Your task to perform on an android device: turn notification dots off Image 0: 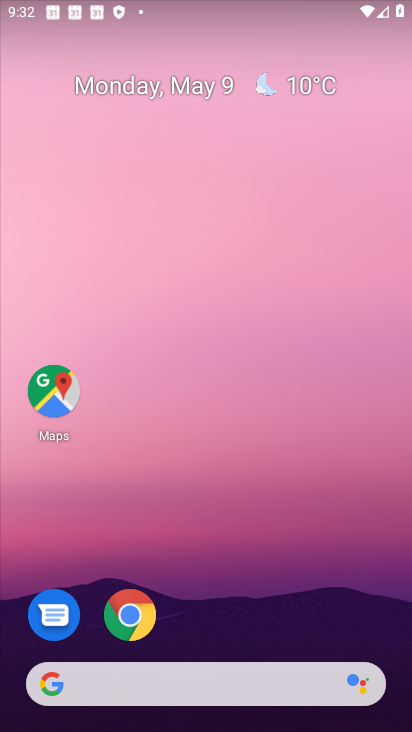
Step 0: drag from (202, 486) to (295, 134)
Your task to perform on an android device: turn notification dots off Image 1: 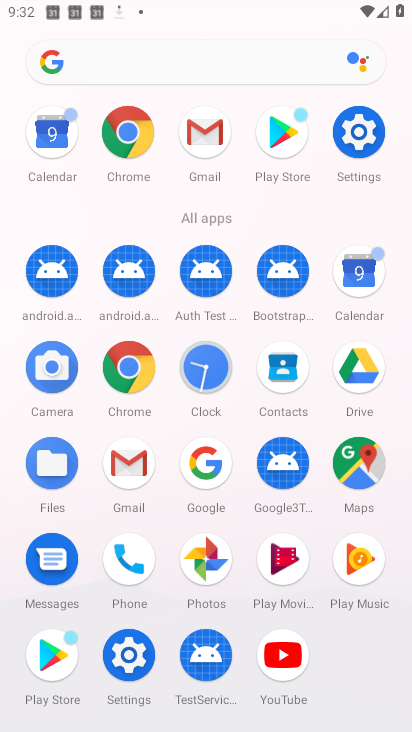
Step 1: click (358, 148)
Your task to perform on an android device: turn notification dots off Image 2: 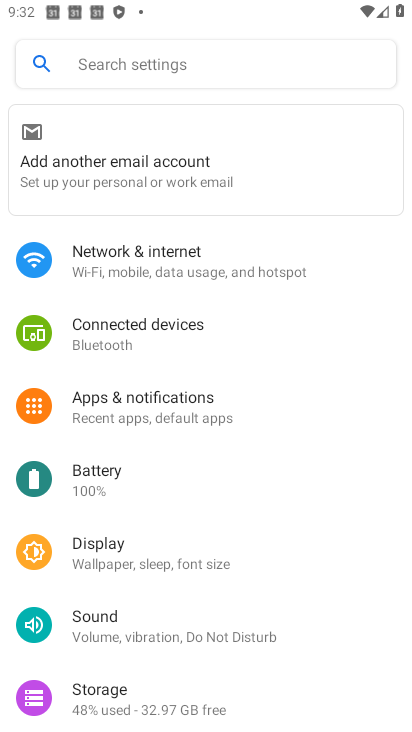
Step 2: click (179, 392)
Your task to perform on an android device: turn notification dots off Image 3: 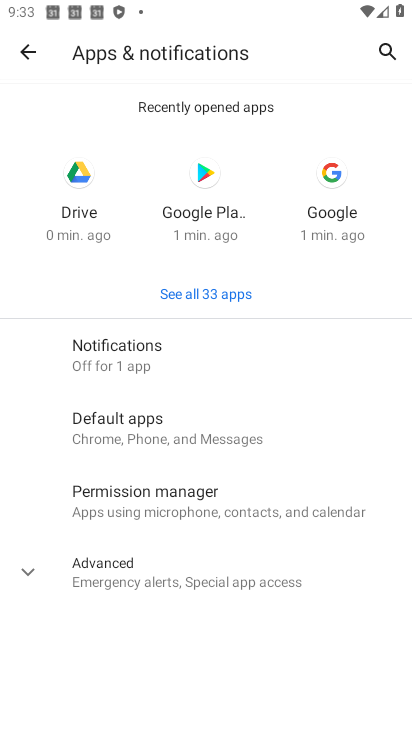
Step 3: click (154, 353)
Your task to perform on an android device: turn notification dots off Image 4: 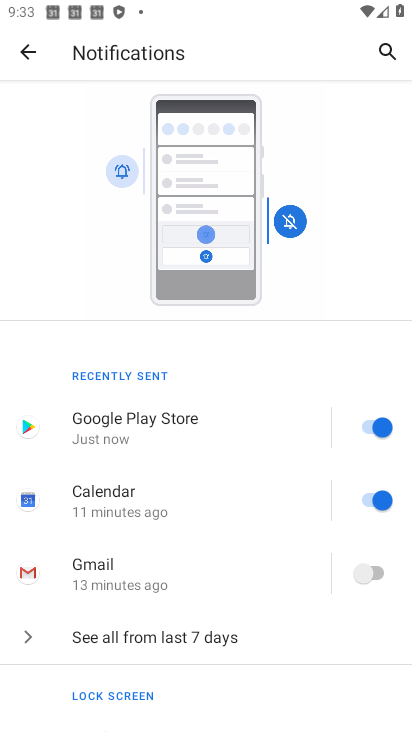
Step 4: drag from (161, 628) to (233, 237)
Your task to perform on an android device: turn notification dots off Image 5: 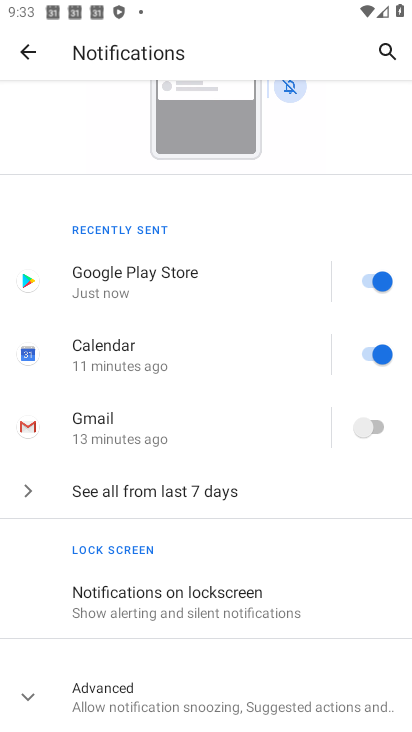
Step 5: click (114, 713)
Your task to perform on an android device: turn notification dots off Image 6: 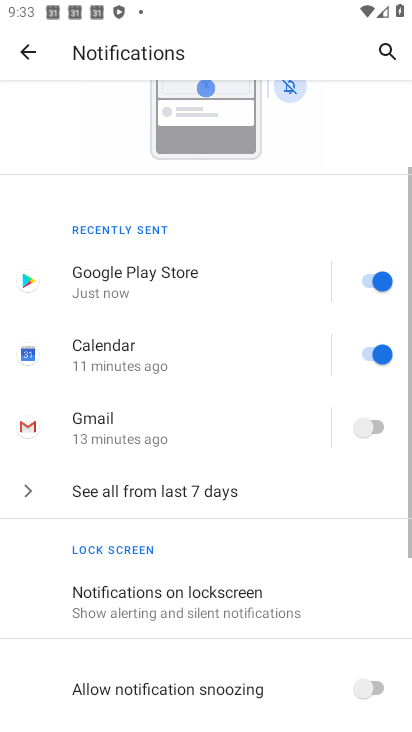
Step 6: drag from (157, 613) to (256, 215)
Your task to perform on an android device: turn notification dots off Image 7: 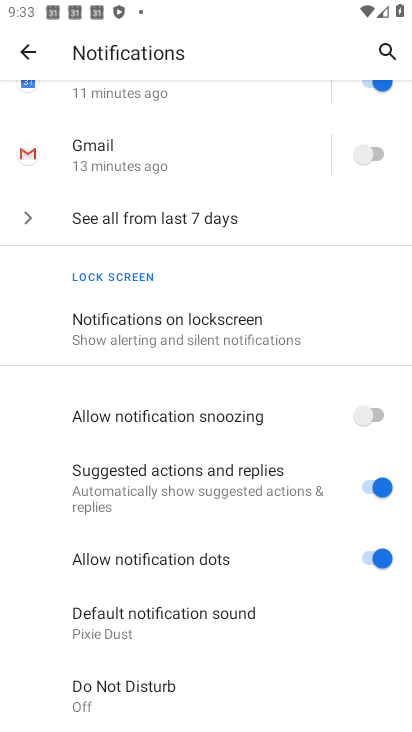
Step 7: click (360, 553)
Your task to perform on an android device: turn notification dots off Image 8: 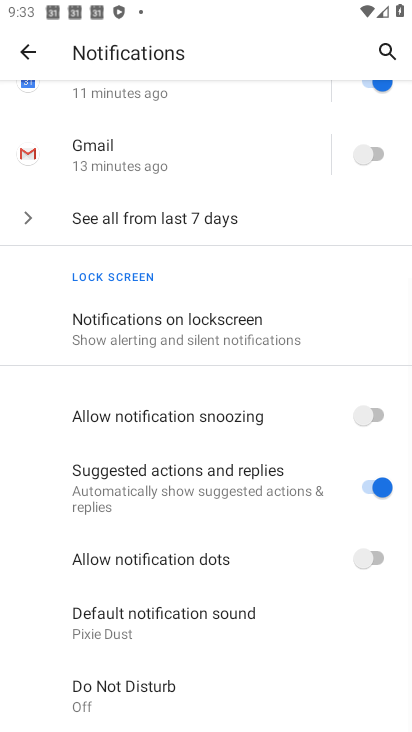
Step 8: task complete